Your task to perform on an android device: find photos in the google photos app Image 0: 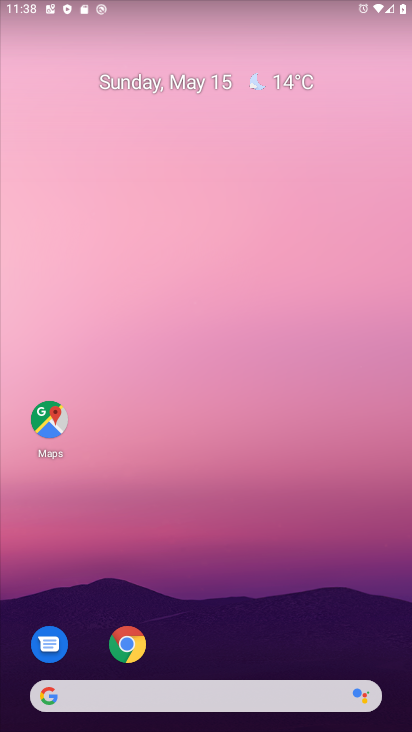
Step 0: drag from (259, 564) to (186, 129)
Your task to perform on an android device: find photos in the google photos app Image 1: 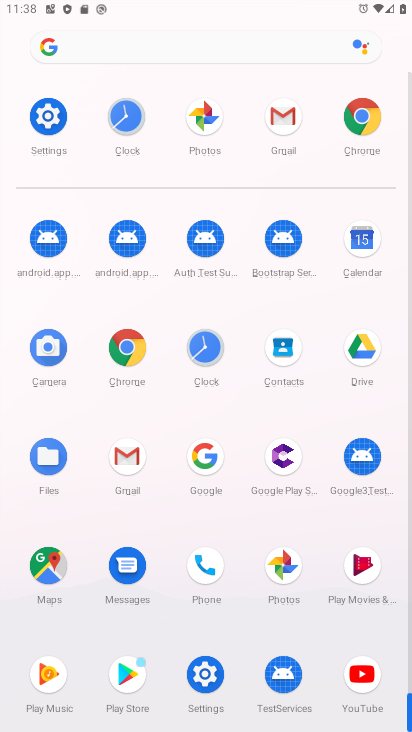
Step 1: click (278, 576)
Your task to perform on an android device: find photos in the google photos app Image 2: 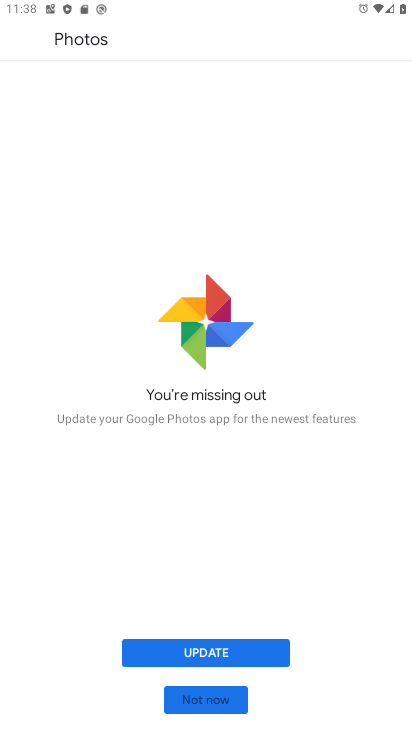
Step 2: click (217, 653)
Your task to perform on an android device: find photos in the google photos app Image 3: 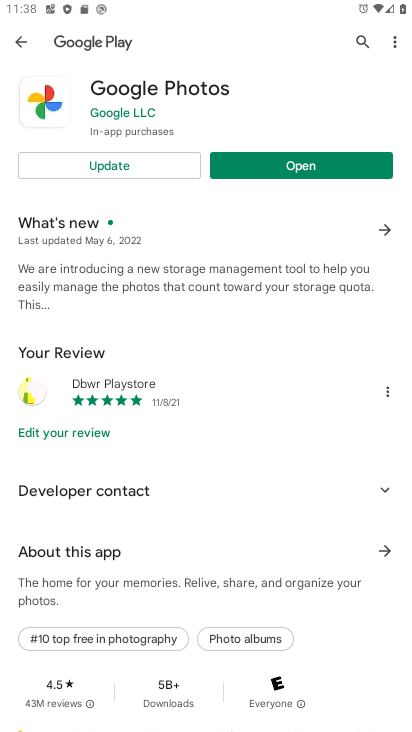
Step 3: click (128, 166)
Your task to perform on an android device: find photos in the google photos app Image 4: 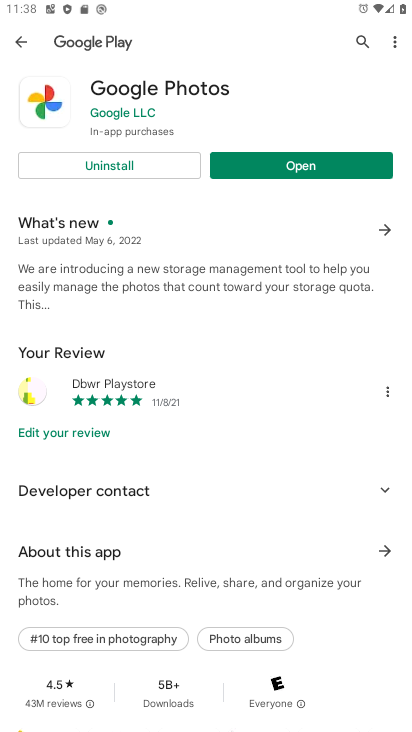
Step 4: click (248, 169)
Your task to perform on an android device: find photos in the google photos app Image 5: 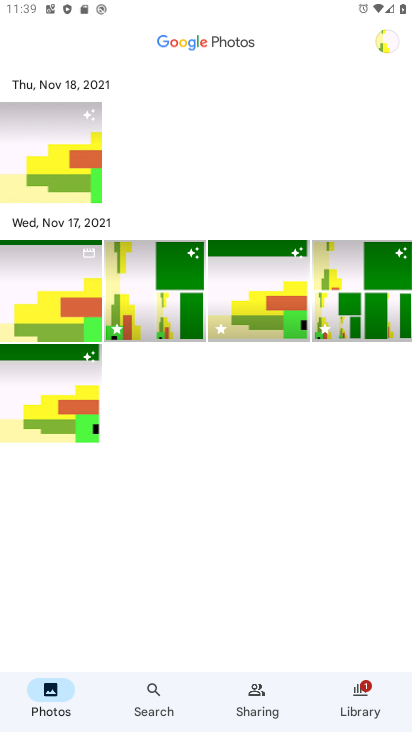
Step 5: task complete